Your task to perform on an android device: turn on the 24-hour format for clock Image 0: 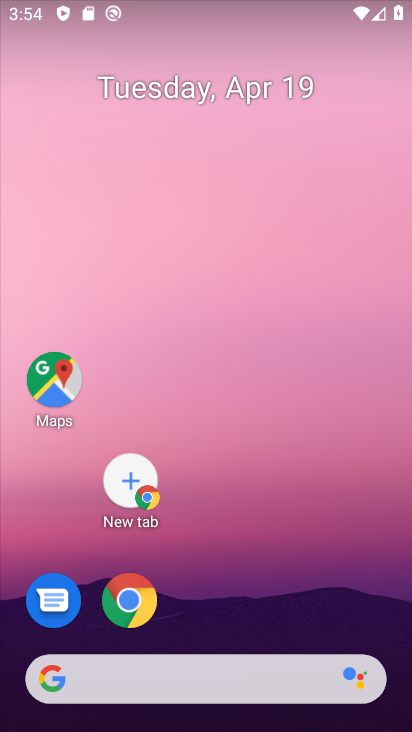
Step 0: drag from (210, 645) to (316, 31)
Your task to perform on an android device: turn on the 24-hour format for clock Image 1: 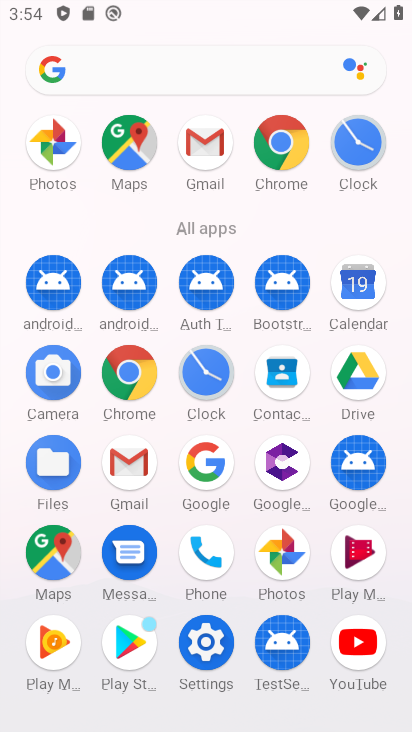
Step 1: click (352, 157)
Your task to perform on an android device: turn on the 24-hour format for clock Image 2: 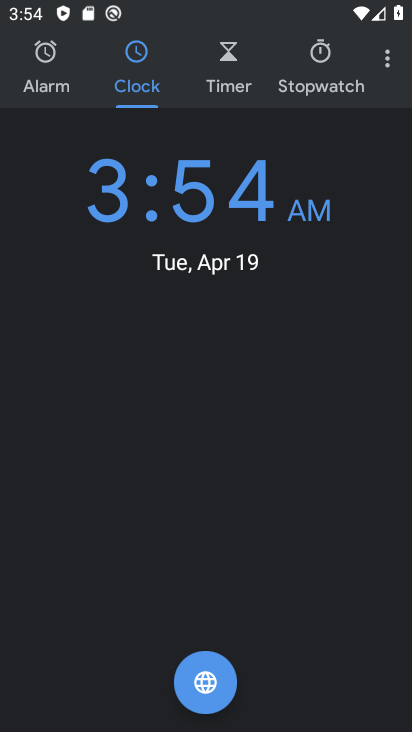
Step 2: click (394, 62)
Your task to perform on an android device: turn on the 24-hour format for clock Image 3: 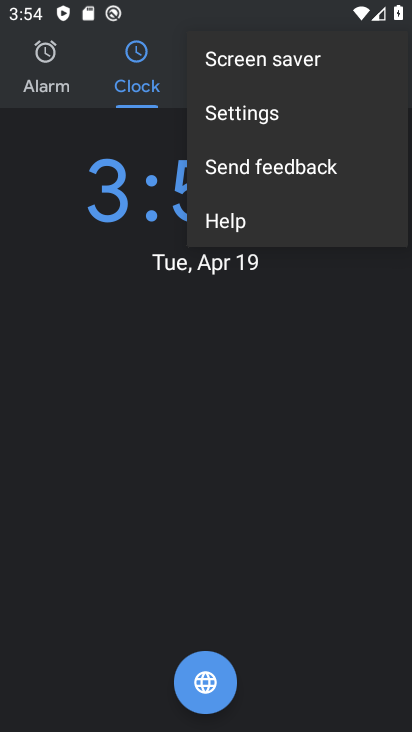
Step 3: click (289, 121)
Your task to perform on an android device: turn on the 24-hour format for clock Image 4: 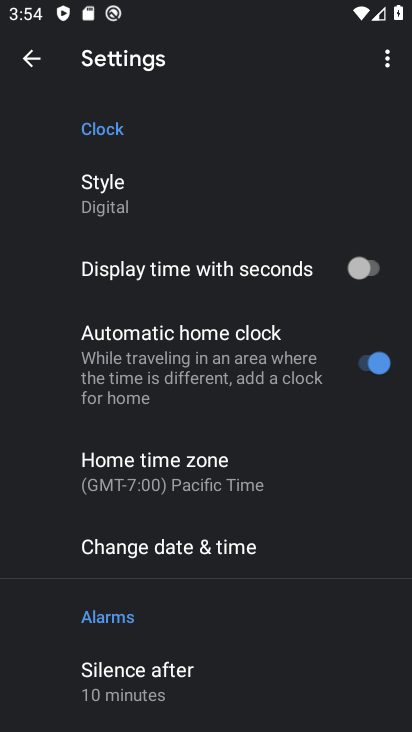
Step 4: click (300, 554)
Your task to perform on an android device: turn on the 24-hour format for clock Image 5: 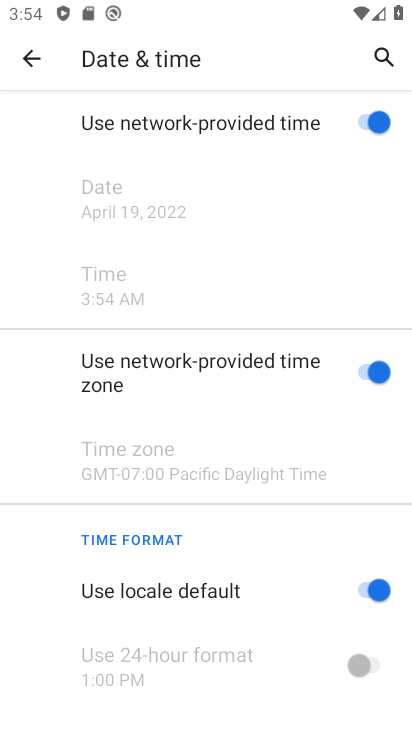
Step 5: click (369, 593)
Your task to perform on an android device: turn on the 24-hour format for clock Image 6: 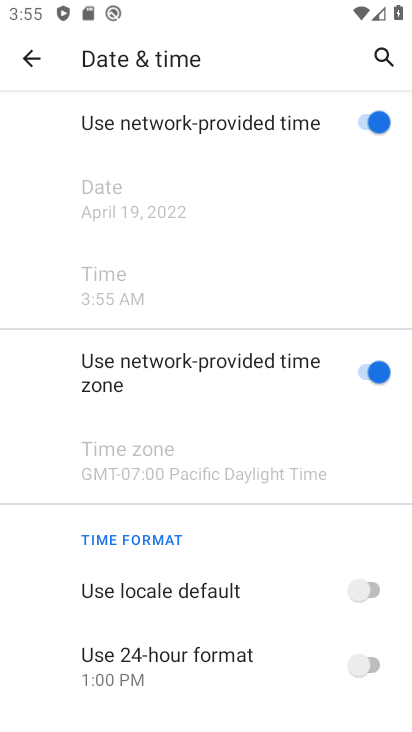
Step 6: click (374, 664)
Your task to perform on an android device: turn on the 24-hour format for clock Image 7: 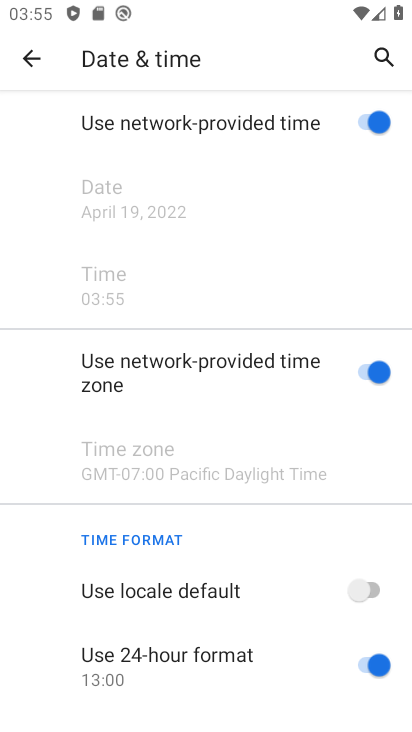
Step 7: task complete